Your task to perform on an android device: What's the news today? Image 0: 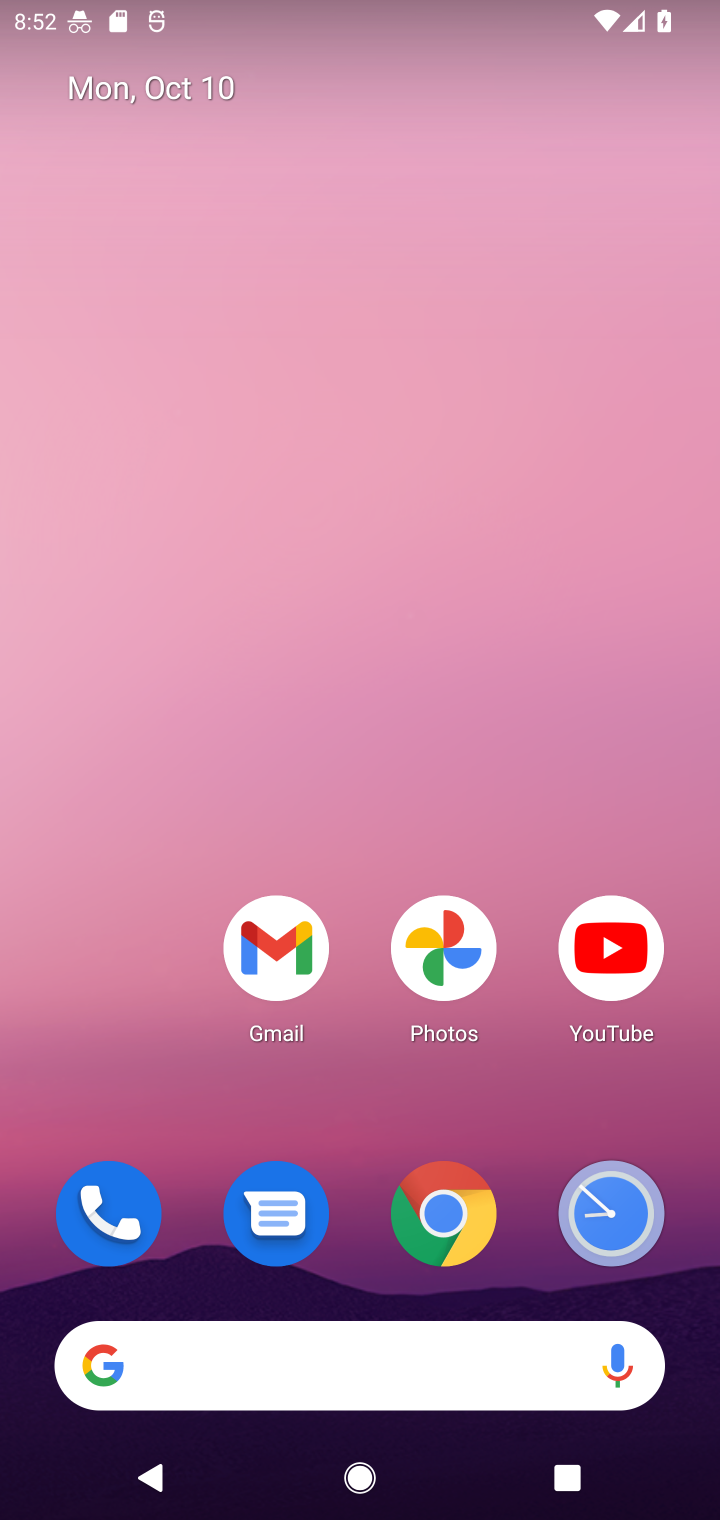
Step 0: click (240, 1392)
Your task to perform on an android device: What's the news today? Image 1: 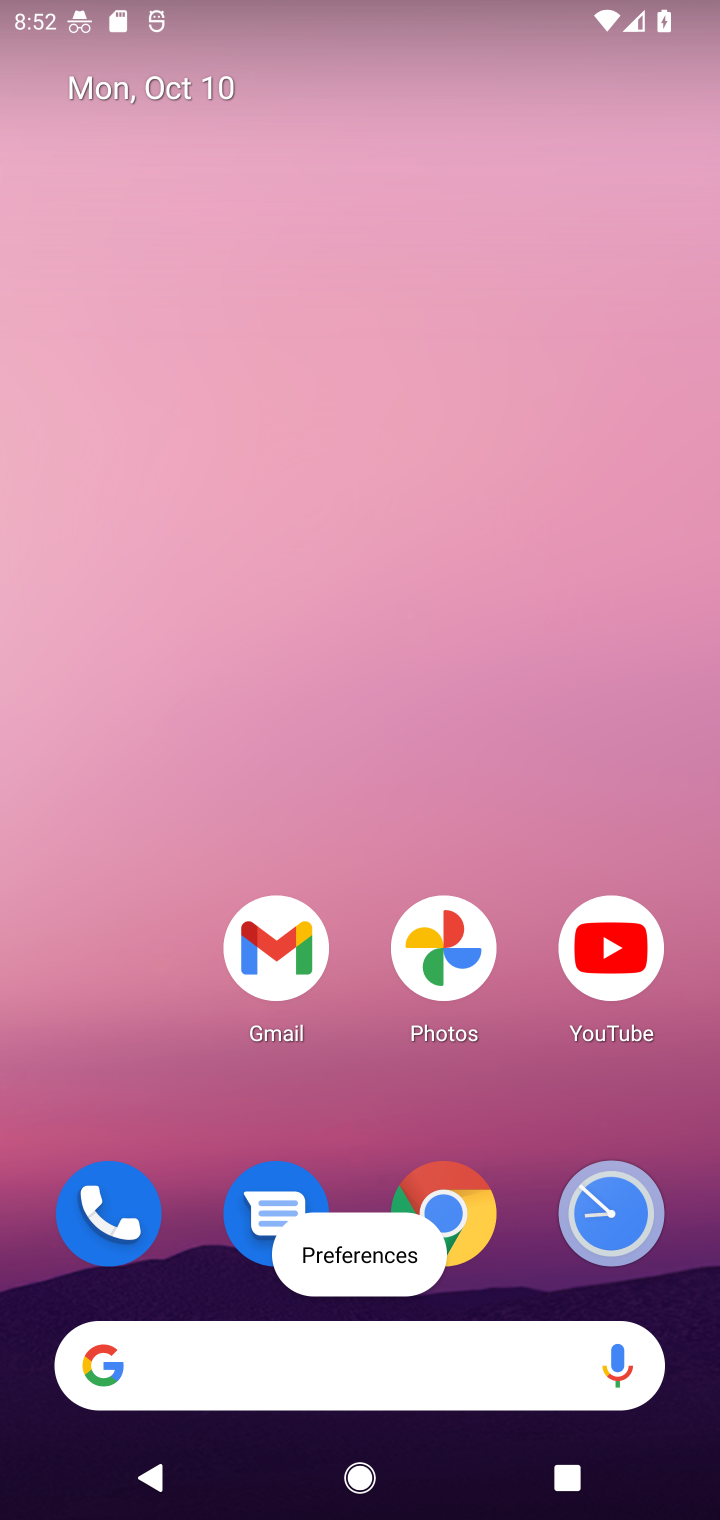
Step 1: click (330, 1371)
Your task to perform on an android device: What's the news today? Image 2: 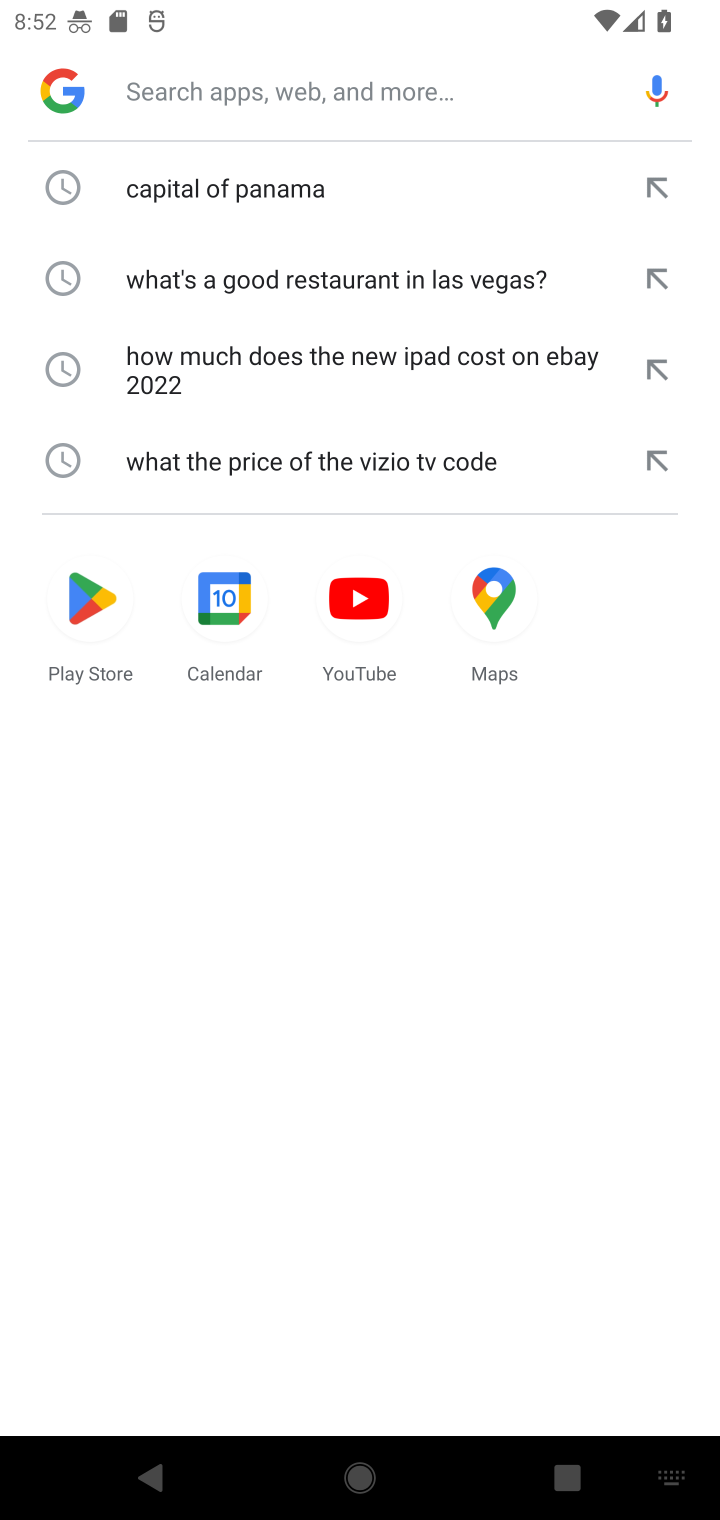
Step 2: click (250, 92)
Your task to perform on an android device: What's the news today? Image 3: 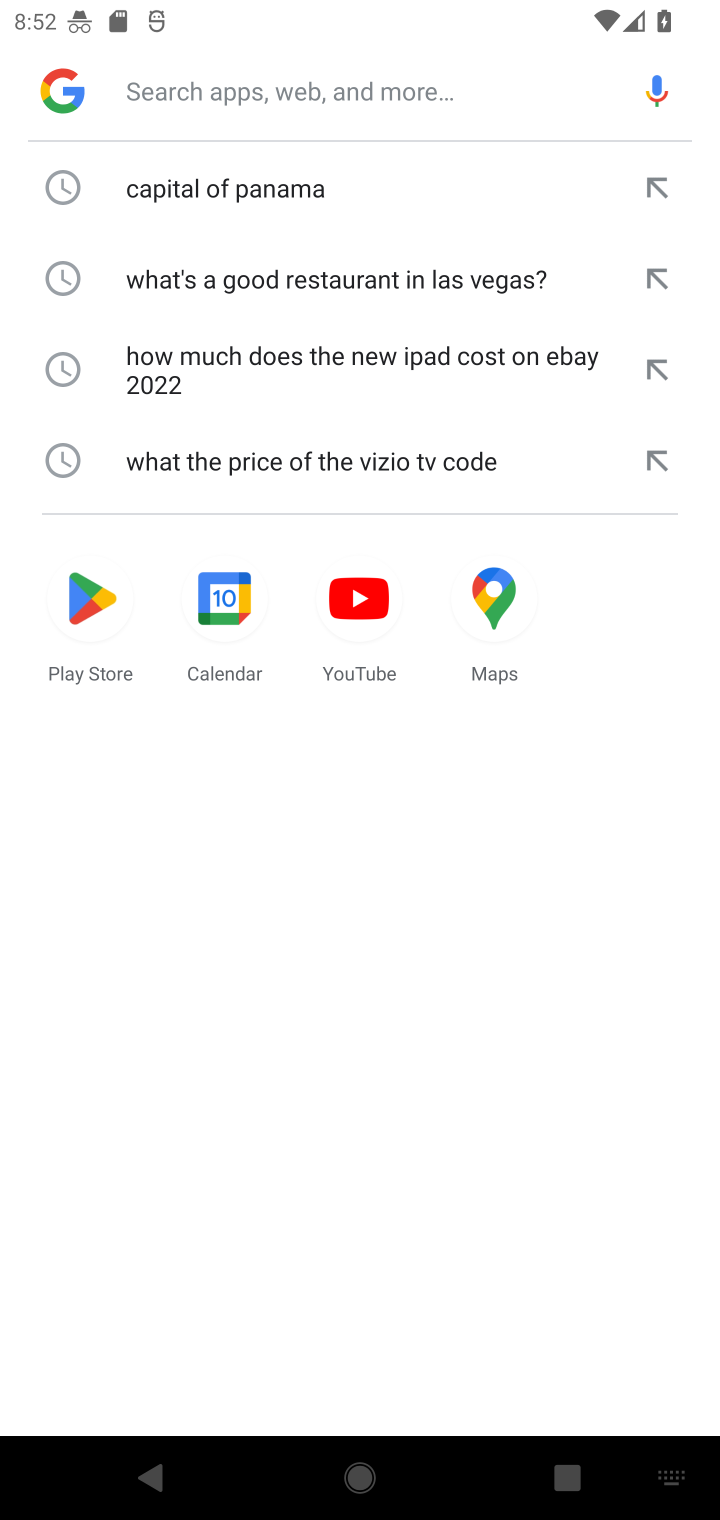
Step 3: type "What's the news today?"
Your task to perform on an android device: What's the news today? Image 4: 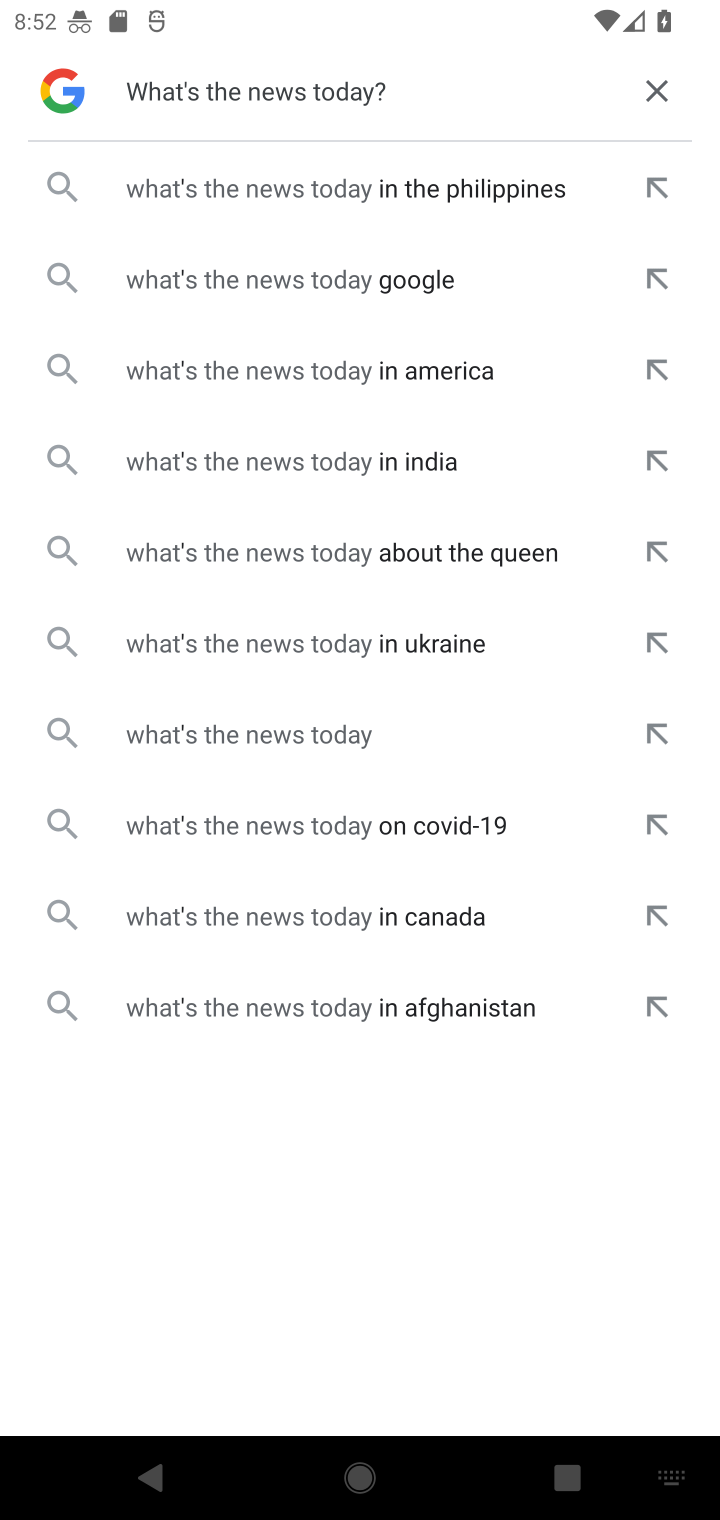
Step 4: click (297, 285)
Your task to perform on an android device: What's the news today? Image 5: 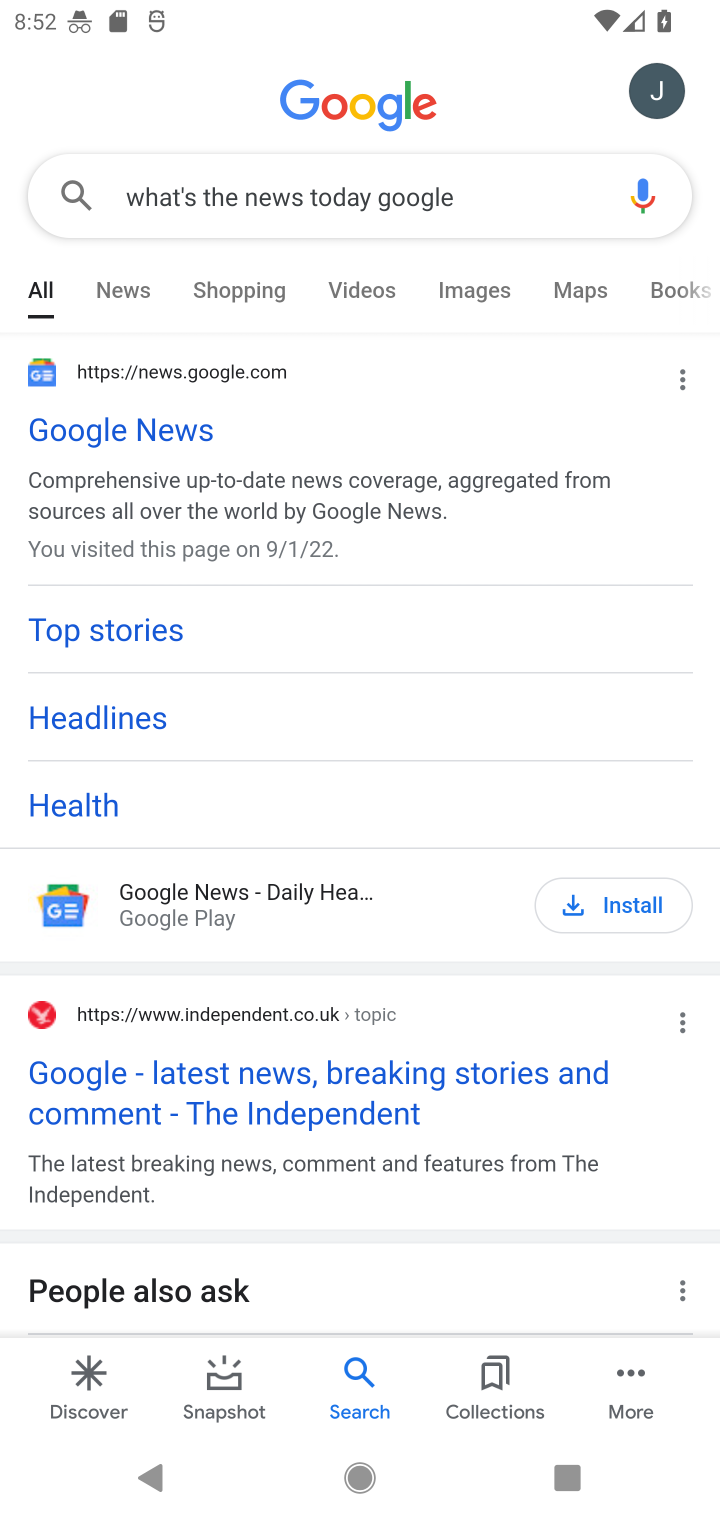
Step 5: task complete